Your task to perform on an android device: open app "Speedtest by Ookla" (install if not already installed) and enter user name: "hyena@outlook.com" and password: "terminators" Image 0: 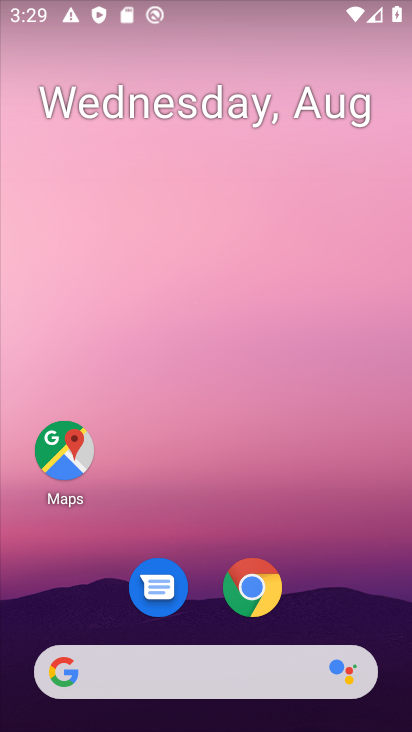
Step 0: click (246, 97)
Your task to perform on an android device: open app "Speedtest by Ookla" (install if not already installed) and enter user name: "hyena@outlook.com" and password: "terminators" Image 1: 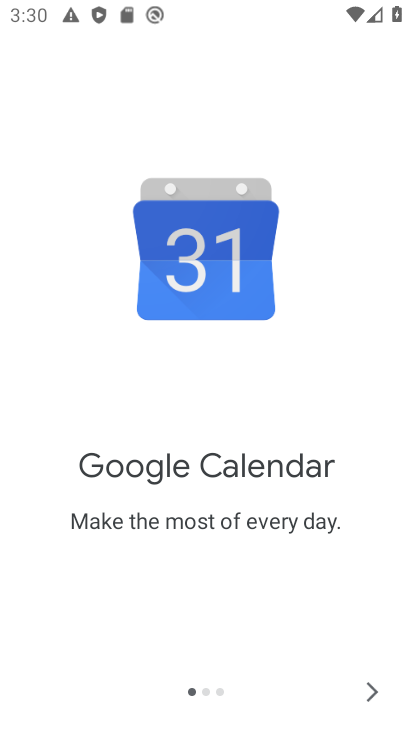
Step 1: press home button
Your task to perform on an android device: open app "Speedtest by Ookla" (install if not already installed) and enter user name: "hyena@outlook.com" and password: "terminators" Image 2: 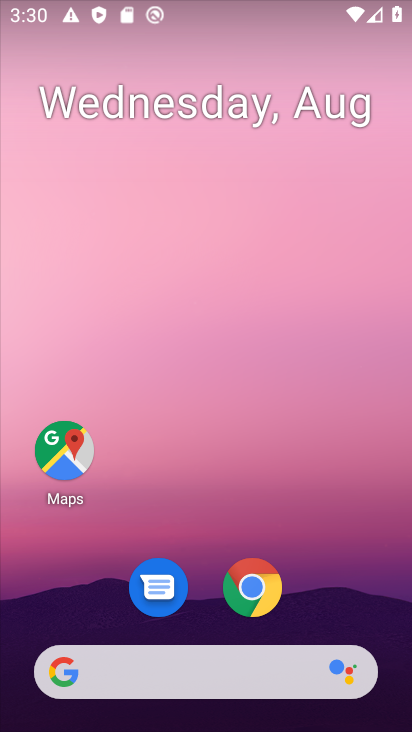
Step 2: drag from (207, 609) to (305, 77)
Your task to perform on an android device: open app "Speedtest by Ookla" (install if not already installed) and enter user name: "hyena@outlook.com" and password: "terminators" Image 3: 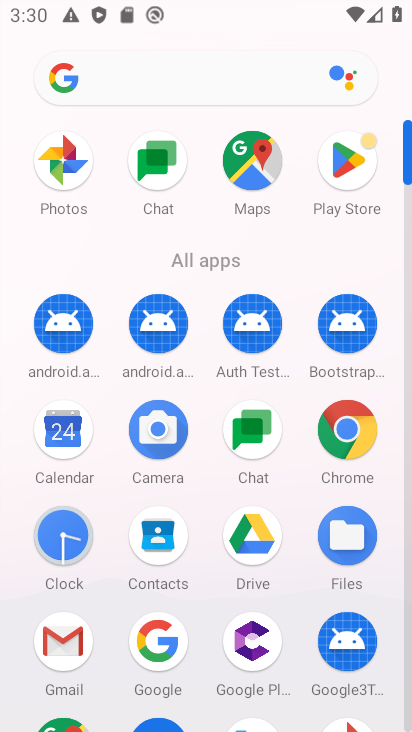
Step 3: click (348, 166)
Your task to perform on an android device: open app "Speedtest by Ookla" (install if not already installed) and enter user name: "hyena@outlook.com" and password: "terminators" Image 4: 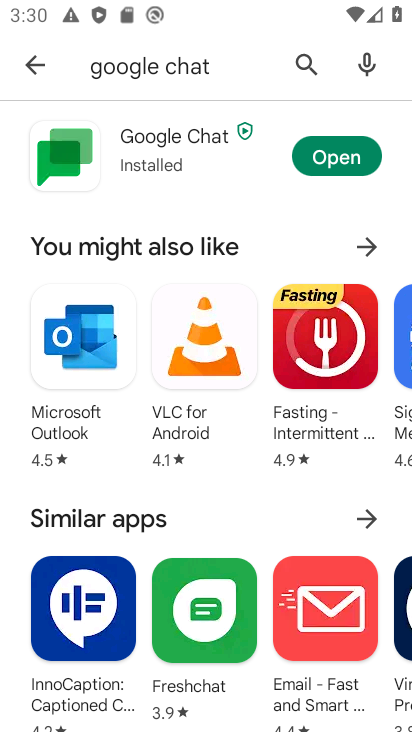
Step 4: click (299, 62)
Your task to perform on an android device: open app "Speedtest by Ookla" (install if not already installed) and enter user name: "hyena@outlook.com" and password: "terminators" Image 5: 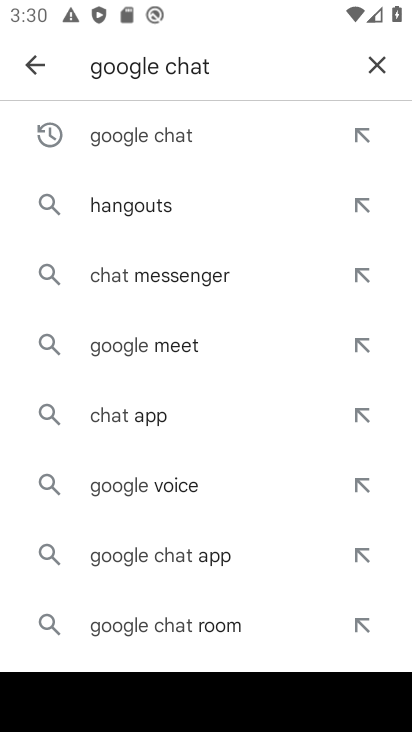
Step 5: click (378, 69)
Your task to perform on an android device: open app "Speedtest by Ookla" (install if not already installed) and enter user name: "hyena@outlook.com" and password: "terminators" Image 6: 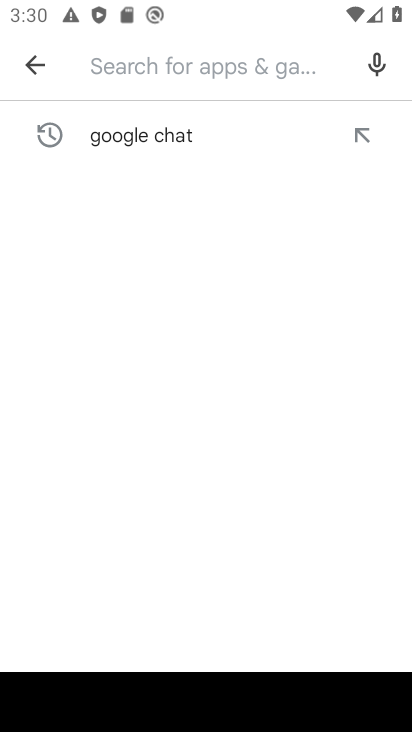
Step 6: type "Speedtest by Ookla"
Your task to perform on an android device: open app "Speedtest by Ookla" (install if not already installed) and enter user name: "hyena@outlook.com" and password: "terminators" Image 7: 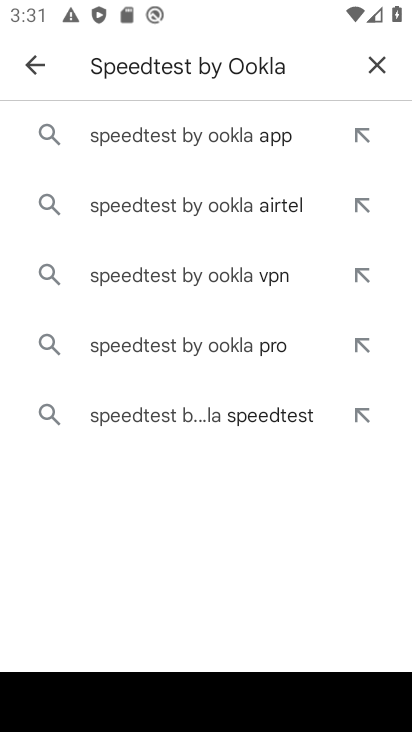
Step 7: click (252, 144)
Your task to perform on an android device: open app "Speedtest by Ookla" (install if not already installed) and enter user name: "hyena@outlook.com" and password: "terminators" Image 8: 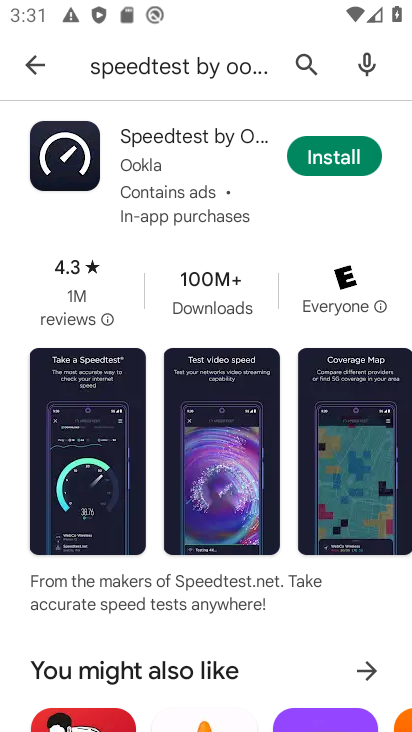
Step 8: click (345, 161)
Your task to perform on an android device: open app "Speedtest by Ookla" (install if not already installed) and enter user name: "hyena@outlook.com" and password: "terminators" Image 9: 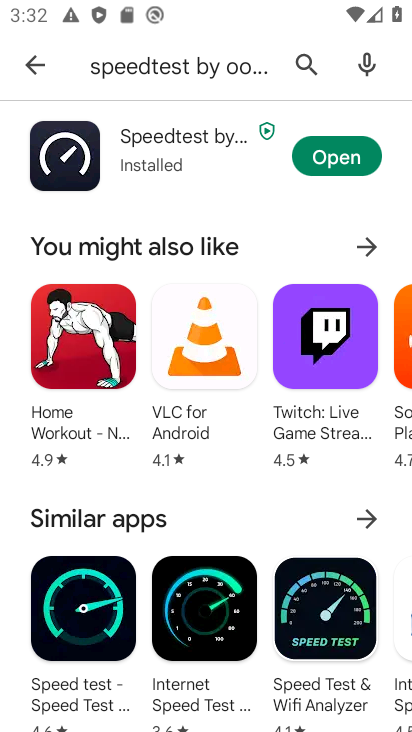
Step 9: click (347, 147)
Your task to perform on an android device: open app "Speedtest by Ookla" (install if not already installed) and enter user name: "hyena@outlook.com" and password: "terminators" Image 10: 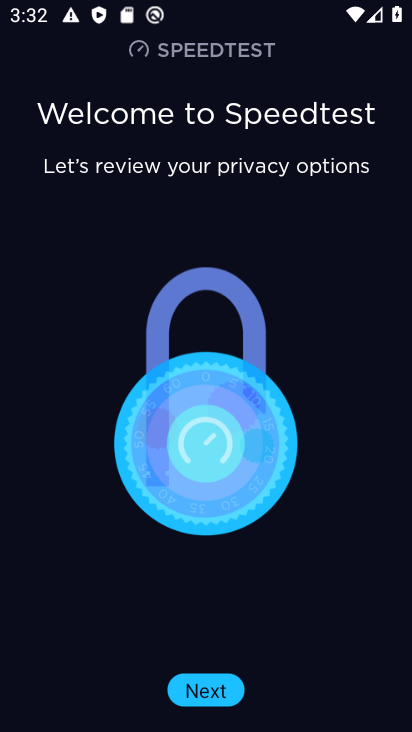
Step 10: click (210, 681)
Your task to perform on an android device: open app "Speedtest by Ookla" (install if not already installed) and enter user name: "hyena@outlook.com" and password: "terminators" Image 11: 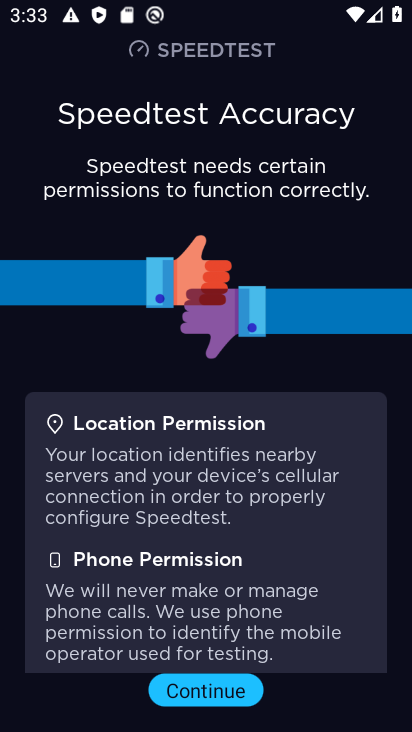
Step 11: click (206, 691)
Your task to perform on an android device: open app "Speedtest by Ookla" (install if not already installed) and enter user name: "hyena@outlook.com" and password: "terminators" Image 12: 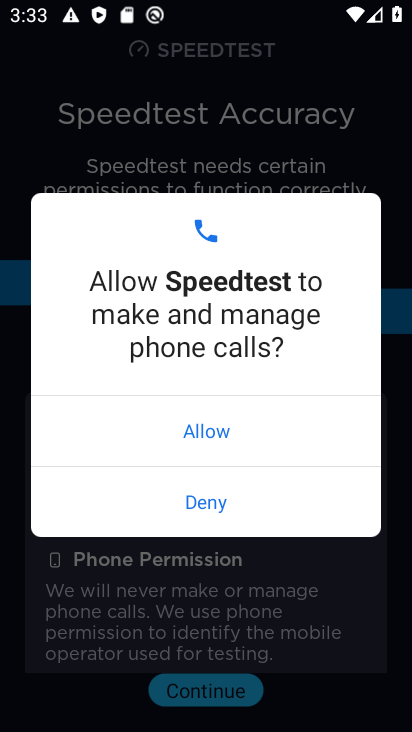
Step 12: click (205, 439)
Your task to perform on an android device: open app "Speedtest by Ookla" (install if not already installed) and enter user name: "hyena@outlook.com" and password: "terminators" Image 13: 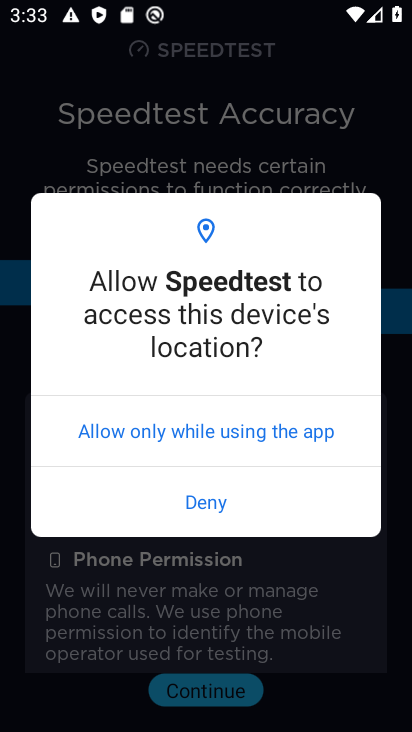
Step 13: click (235, 432)
Your task to perform on an android device: open app "Speedtest by Ookla" (install if not already installed) and enter user name: "hyena@outlook.com" and password: "terminators" Image 14: 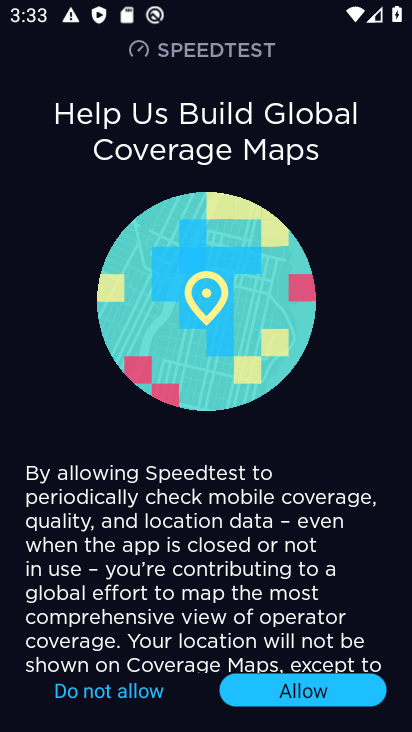
Step 14: click (294, 688)
Your task to perform on an android device: open app "Speedtest by Ookla" (install if not already installed) and enter user name: "hyena@outlook.com" and password: "terminators" Image 15: 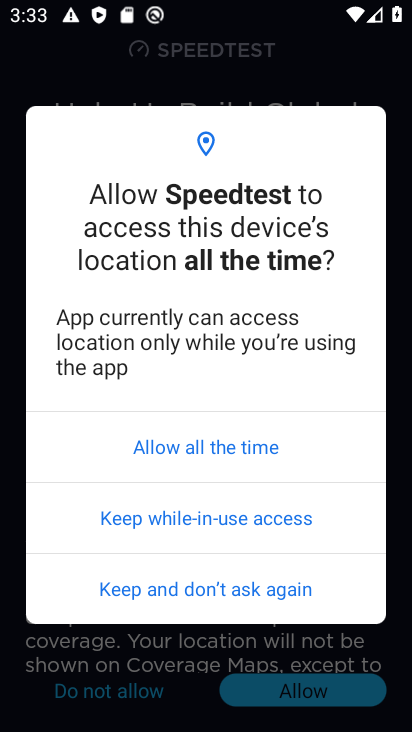
Step 15: click (150, 440)
Your task to perform on an android device: open app "Speedtest by Ookla" (install if not already installed) and enter user name: "hyena@outlook.com" and password: "terminators" Image 16: 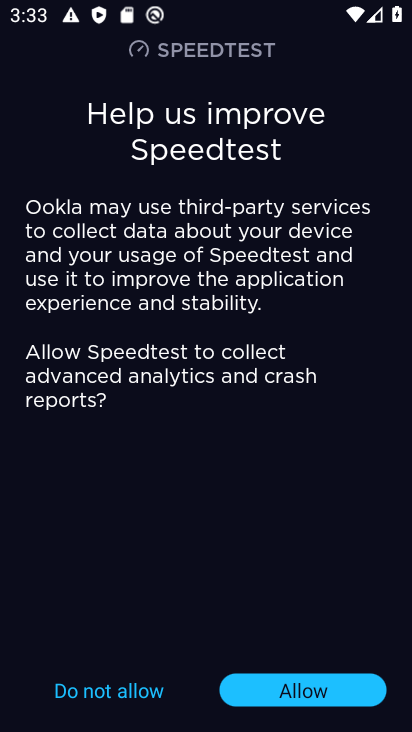
Step 16: click (306, 682)
Your task to perform on an android device: open app "Speedtest by Ookla" (install if not already installed) and enter user name: "hyena@outlook.com" and password: "terminators" Image 17: 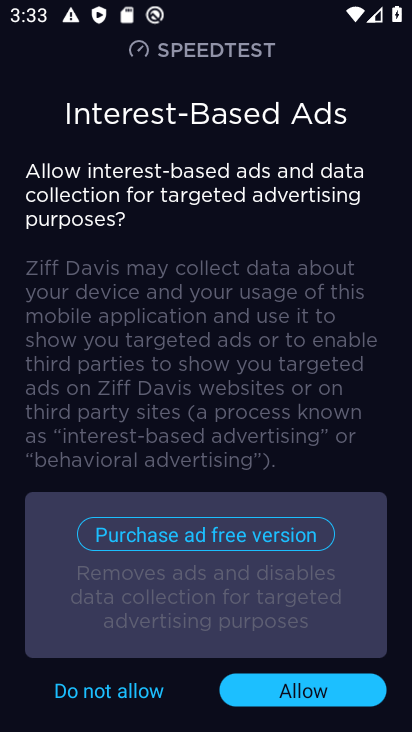
Step 17: click (306, 684)
Your task to perform on an android device: open app "Speedtest by Ookla" (install if not already installed) and enter user name: "hyena@outlook.com" and password: "terminators" Image 18: 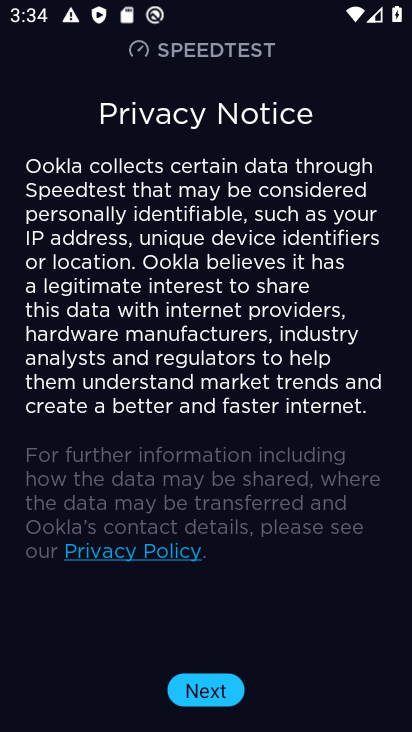
Step 18: click (207, 692)
Your task to perform on an android device: open app "Speedtest by Ookla" (install if not already installed) and enter user name: "hyena@outlook.com" and password: "terminators" Image 19: 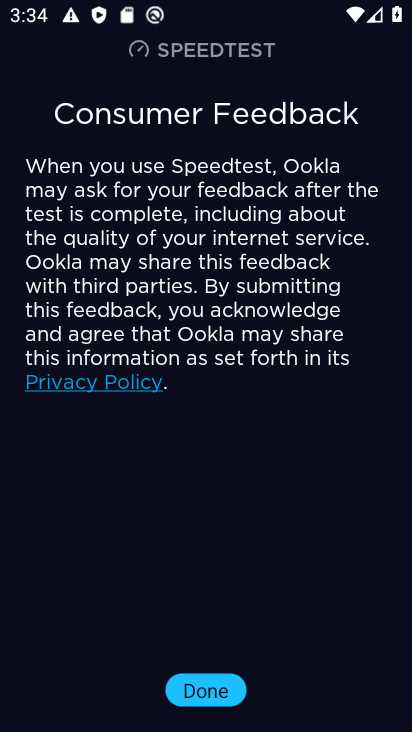
Step 19: click (207, 692)
Your task to perform on an android device: open app "Speedtest by Ookla" (install if not already installed) and enter user name: "hyena@outlook.com" and password: "terminators" Image 20: 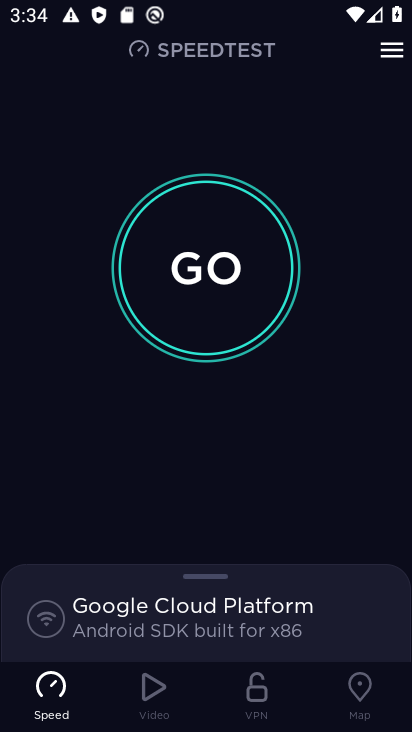
Step 20: task complete